Your task to perform on an android device: snooze an email in the gmail app Image 0: 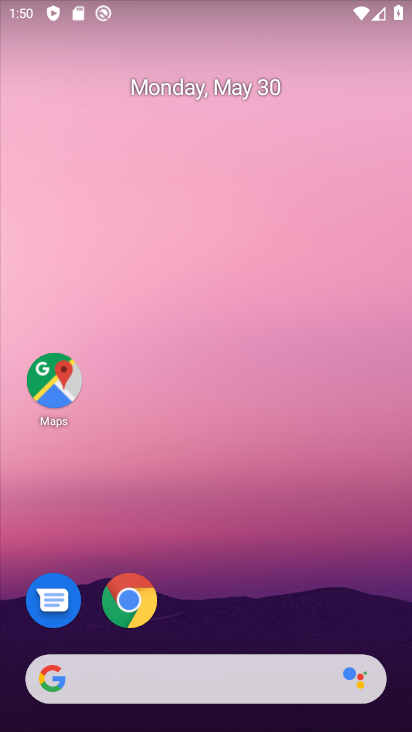
Step 0: drag from (256, 627) to (249, 105)
Your task to perform on an android device: snooze an email in the gmail app Image 1: 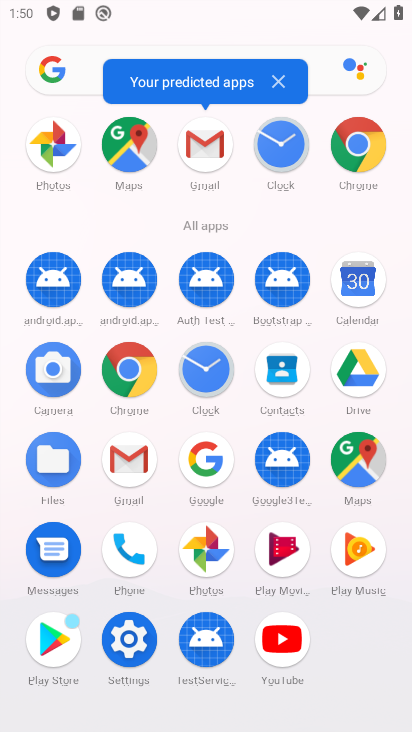
Step 1: click (203, 153)
Your task to perform on an android device: snooze an email in the gmail app Image 2: 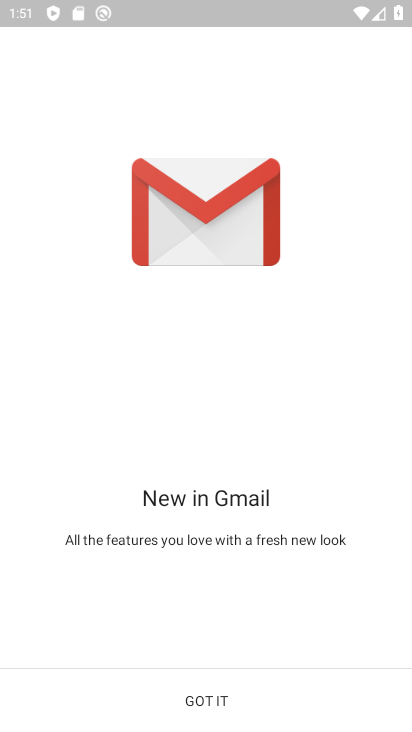
Step 2: click (221, 693)
Your task to perform on an android device: snooze an email in the gmail app Image 3: 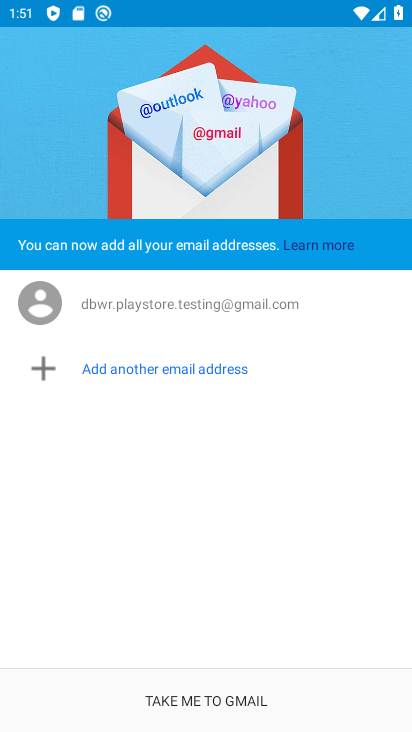
Step 3: click (233, 698)
Your task to perform on an android device: snooze an email in the gmail app Image 4: 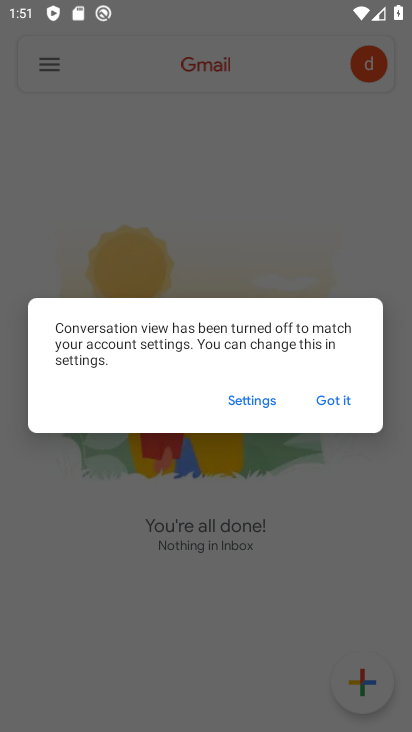
Step 4: click (329, 390)
Your task to perform on an android device: snooze an email in the gmail app Image 5: 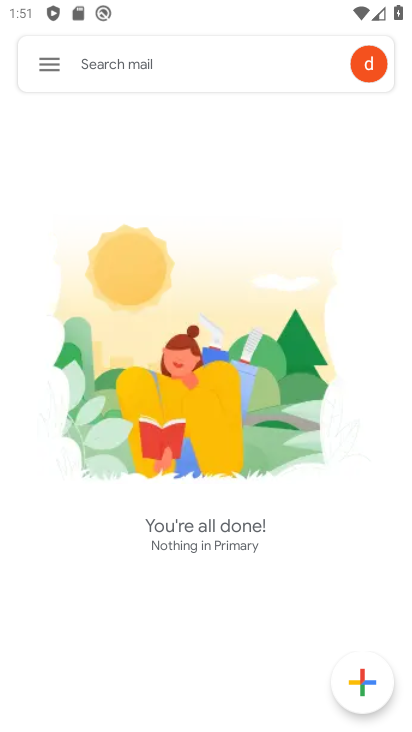
Step 5: click (39, 50)
Your task to perform on an android device: snooze an email in the gmail app Image 6: 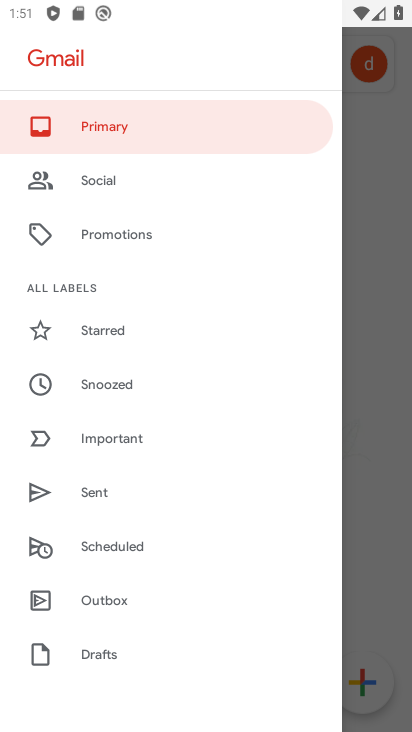
Step 6: drag from (177, 639) to (163, 357)
Your task to perform on an android device: snooze an email in the gmail app Image 7: 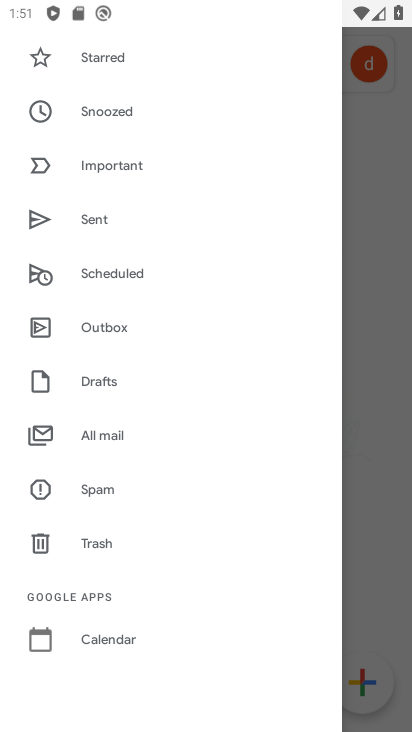
Step 7: click (133, 440)
Your task to perform on an android device: snooze an email in the gmail app Image 8: 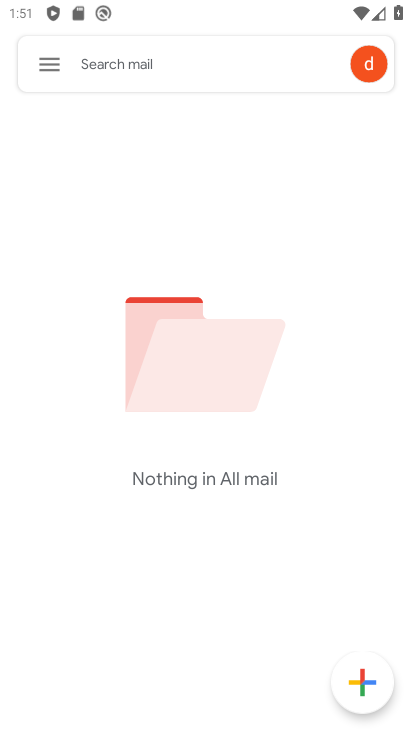
Step 8: task complete